Your task to perform on an android device: delete browsing data in the chrome app Image 0: 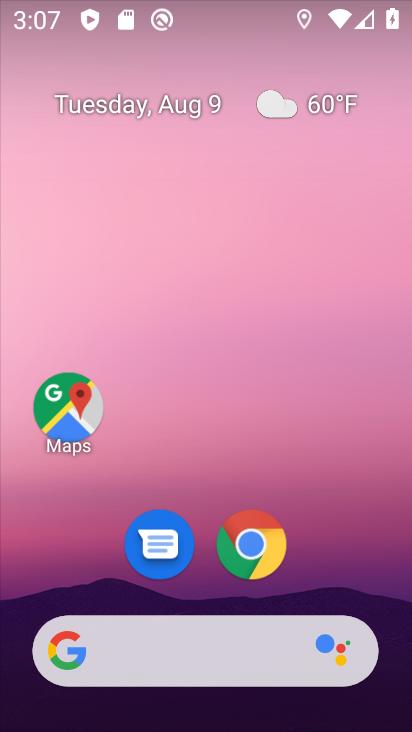
Step 0: click (246, 558)
Your task to perform on an android device: delete browsing data in the chrome app Image 1: 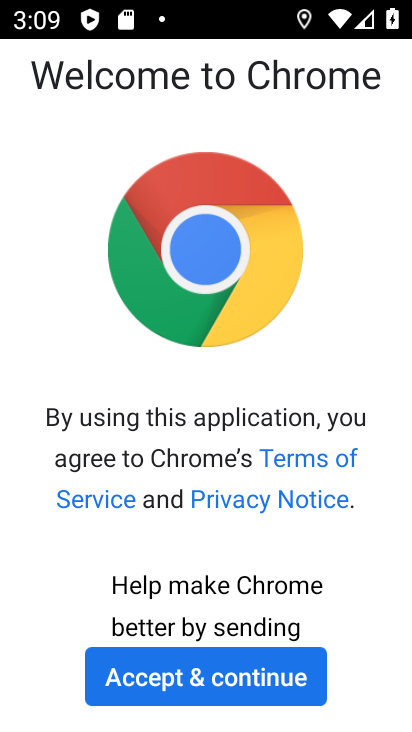
Step 1: click (257, 663)
Your task to perform on an android device: delete browsing data in the chrome app Image 2: 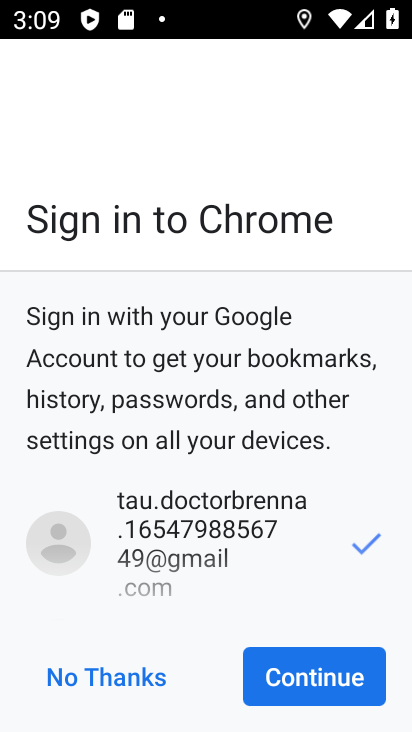
Step 2: click (271, 688)
Your task to perform on an android device: delete browsing data in the chrome app Image 3: 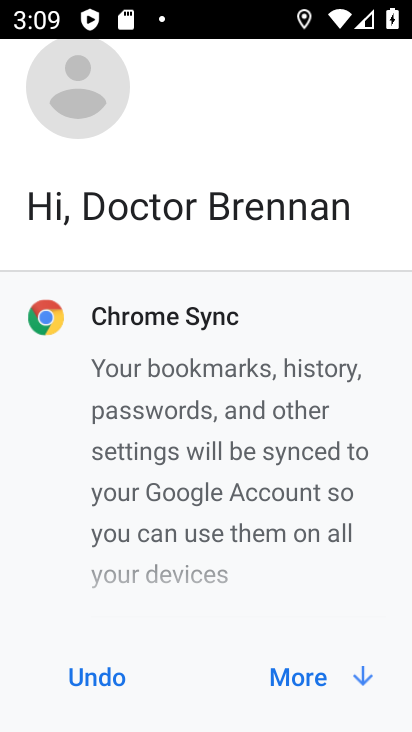
Step 3: click (271, 688)
Your task to perform on an android device: delete browsing data in the chrome app Image 4: 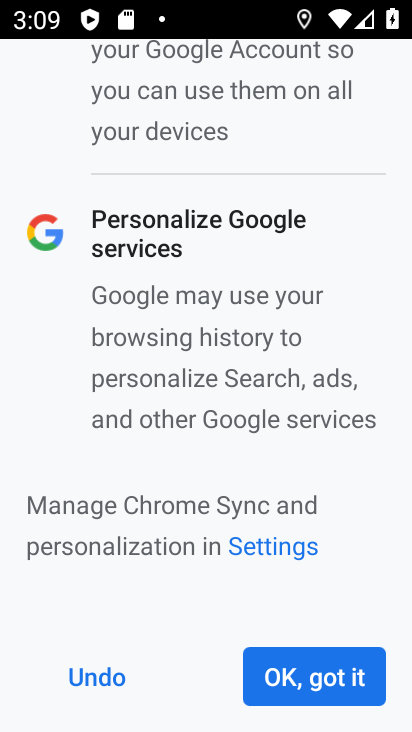
Step 4: click (271, 688)
Your task to perform on an android device: delete browsing data in the chrome app Image 5: 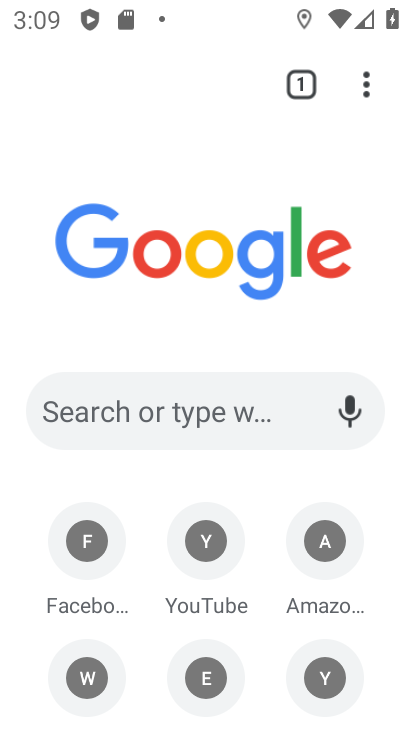
Step 5: click (363, 77)
Your task to perform on an android device: delete browsing data in the chrome app Image 6: 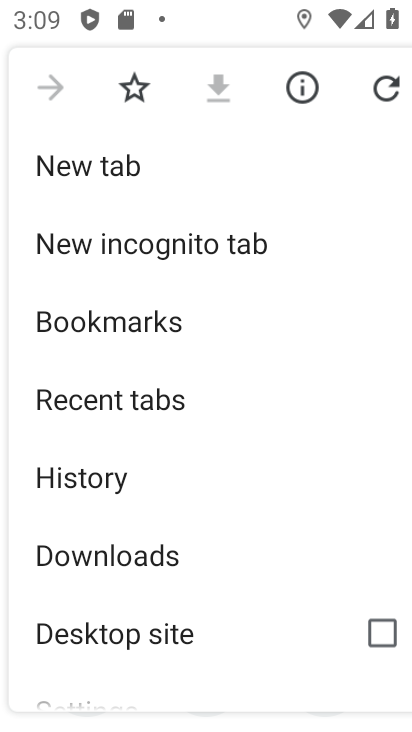
Step 6: click (131, 491)
Your task to perform on an android device: delete browsing data in the chrome app Image 7: 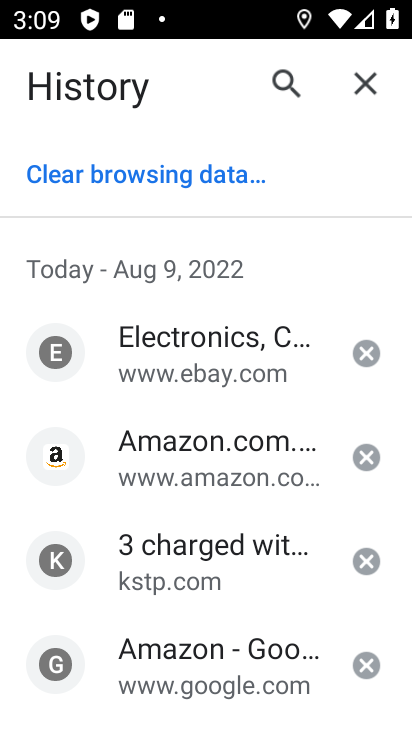
Step 7: click (119, 173)
Your task to perform on an android device: delete browsing data in the chrome app Image 8: 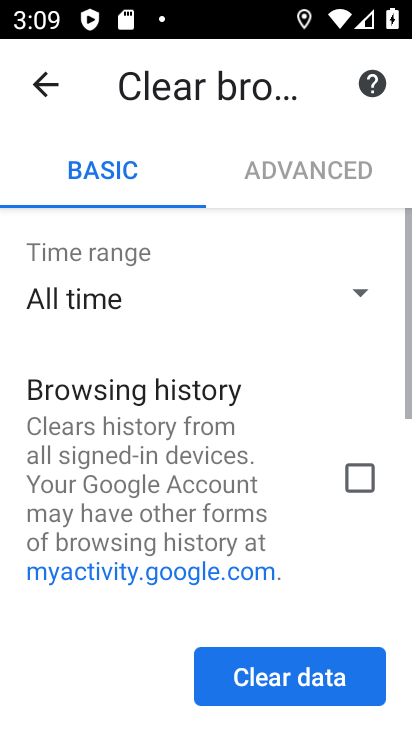
Step 8: click (321, 677)
Your task to perform on an android device: delete browsing data in the chrome app Image 9: 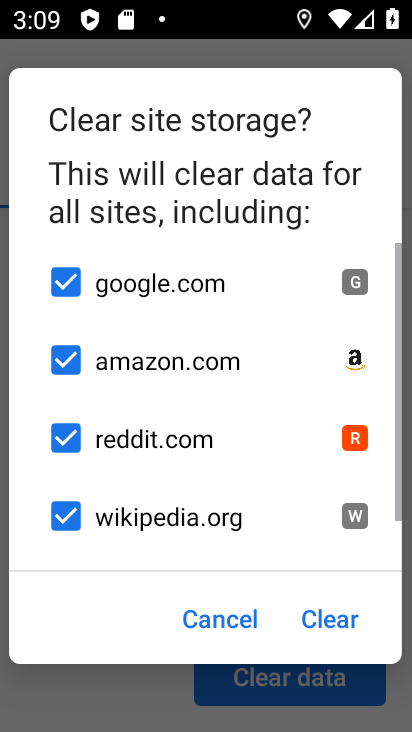
Step 9: click (323, 608)
Your task to perform on an android device: delete browsing data in the chrome app Image 10: 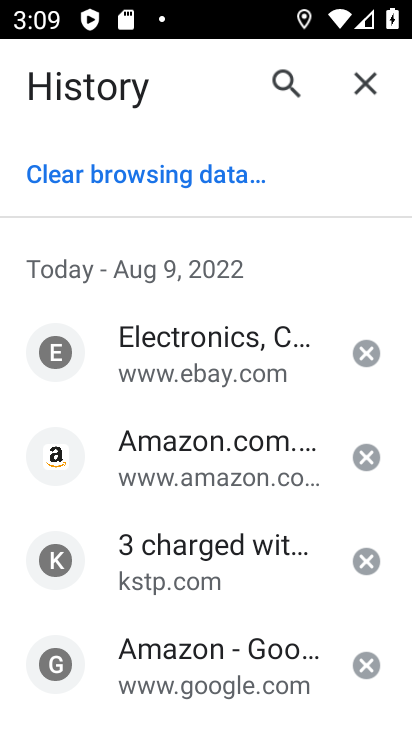
Step 10: task complete